Your task to perform on an android device: Open Google Chrome and click the shortcut for Amazon.com Image 0: 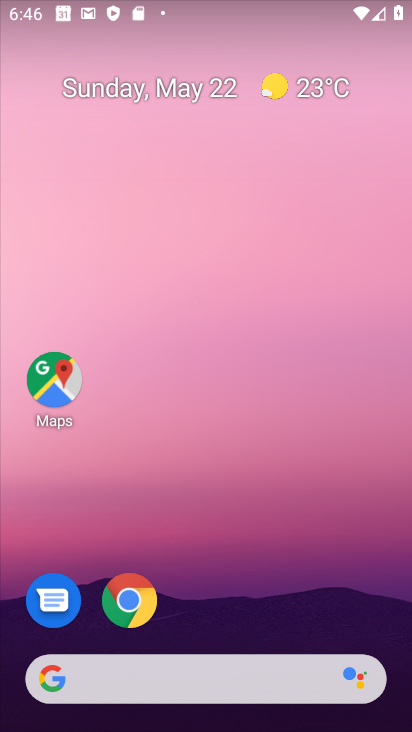
Step 0: drag from (378, 622) to (192, 62)
Your task to perform on an android device: Open Google Chrome and click the shortcut for Amazon.com Image 1: 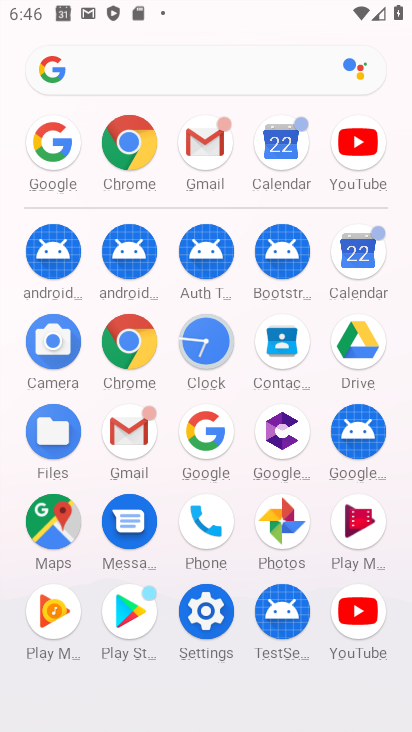
Step 1: click (135, 349)
Your task to perform on an android device: Open Google Chrome and click the shortcut for Amazon.com Image 2: 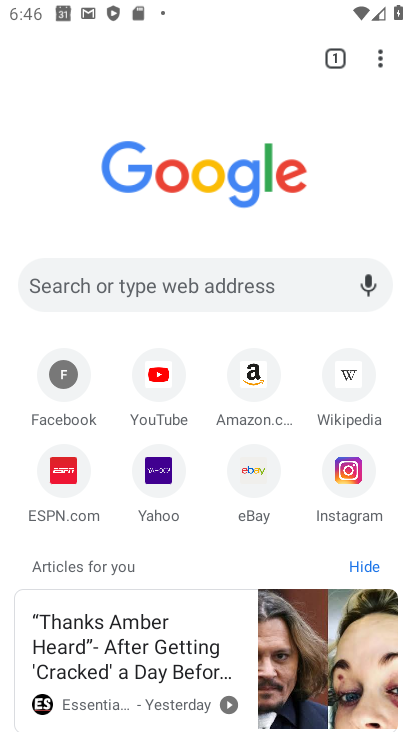
Step 2: click (254, 387)
Your task to perform on an android device: Open Google Chrome and click the shortcut for Amazon.com Image 3: 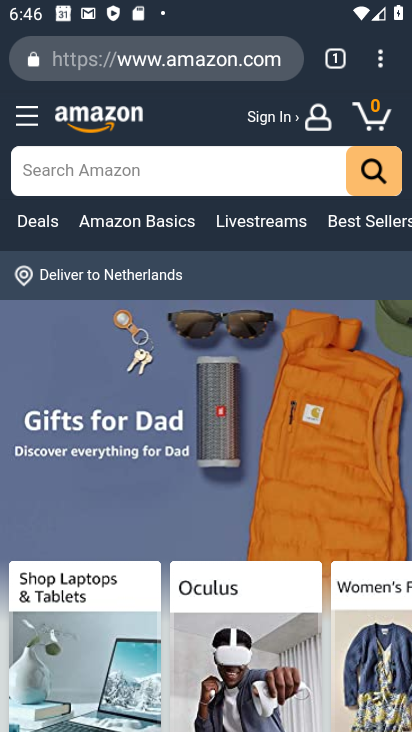
Step 3: task complete